Your task to perform on an android device: Open wifi settings Image 0: 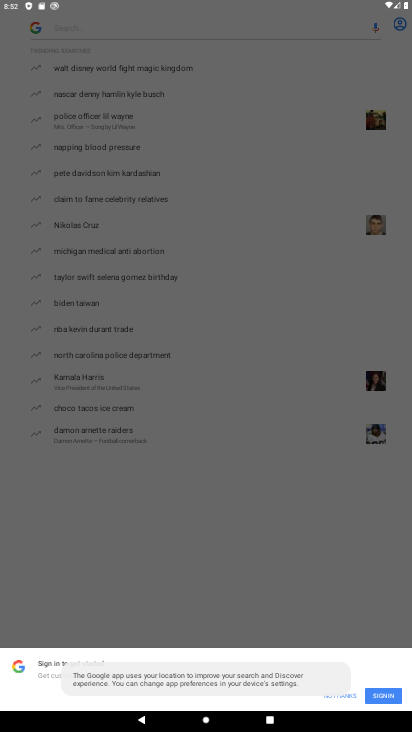
Step 0: press home button
Your task to perform on an android device: Open wifi settings Image 1: 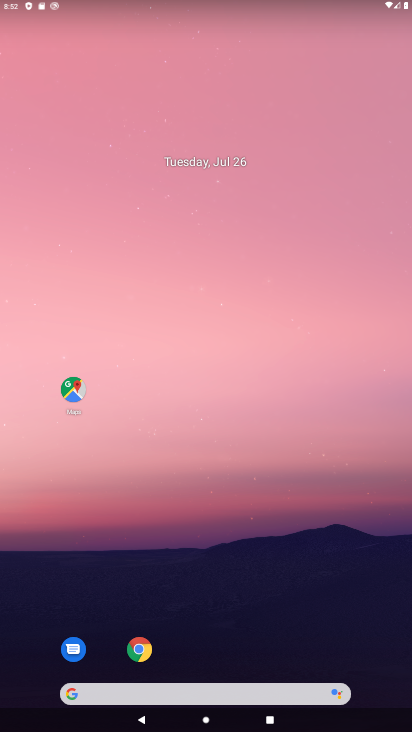
Step 1: drag from (311, 624) to (320, 260)
Your task to perform on an android device: Open wifi settings Image 2: 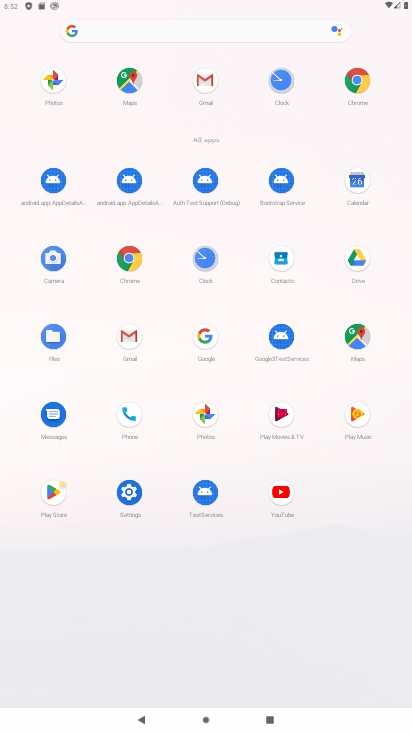
Step 2: click (127, 499)
Your task to perform on an android device: Open wifi settings Image 3: 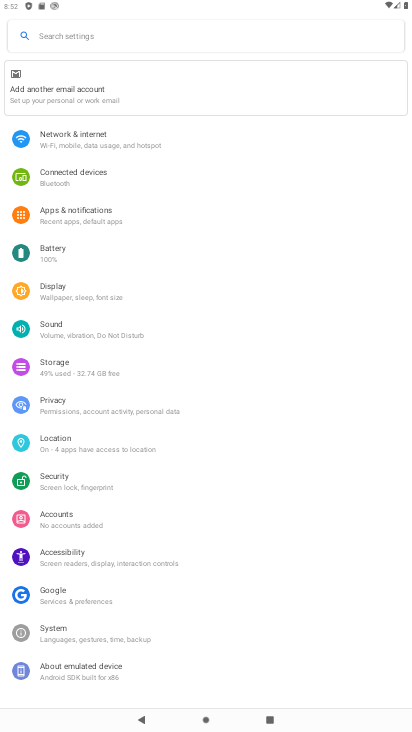
Step 3: click (95, 140)
Your task to perform on an android device: Open wifi settings Image 4: 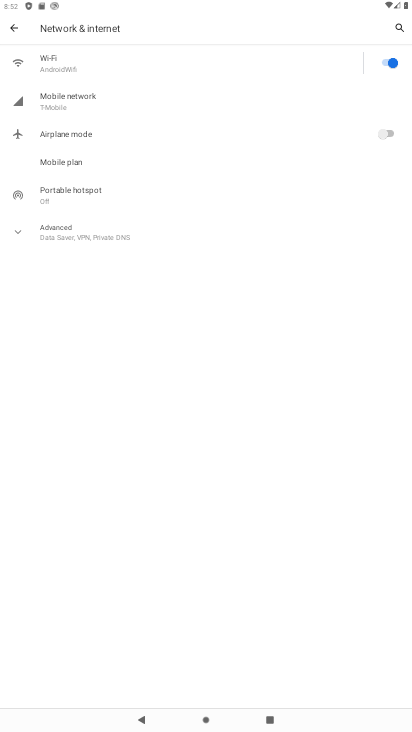
Step 4: click (96, 64)
Your task to perform on an android device: Open wifi settings Image 5: 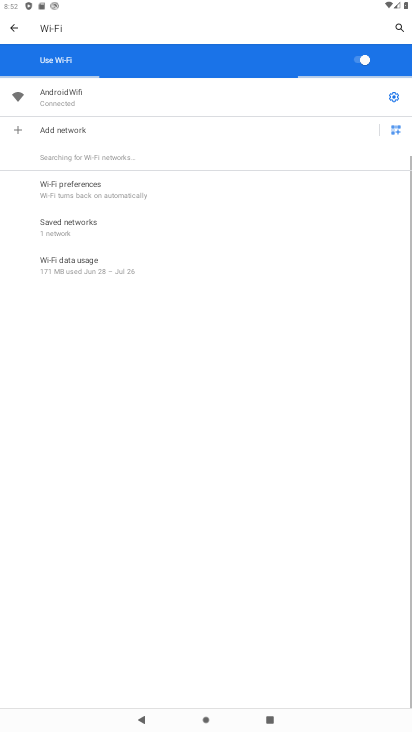
Step 5: task complete